Your task to perform on an android device: turn on the 12-hour format for clock Image 0: 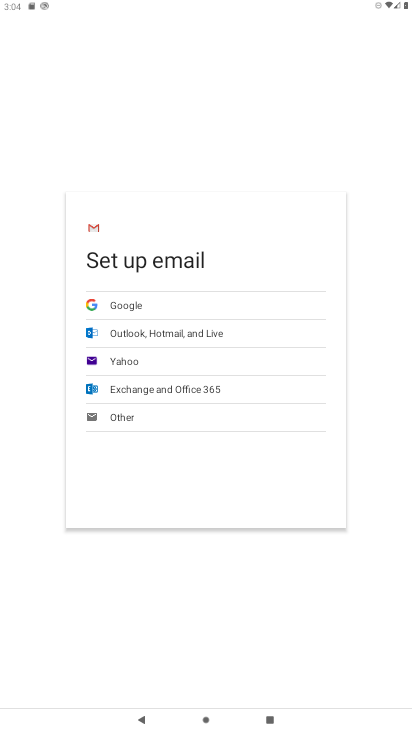
Step 0: press home button
Your task to perform on an android device: turn on the 12-hour format for clock Image 1: 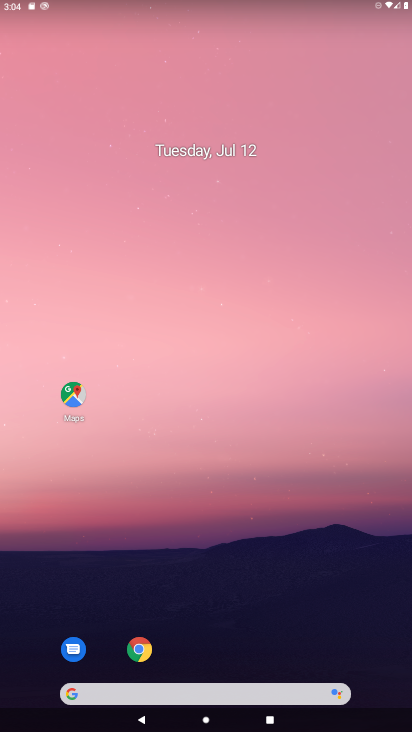
Step 1: drag from (266, 615) to (182, 40)
Your task to perform on an android device: turn on the 12-hour format for clock Image 2: 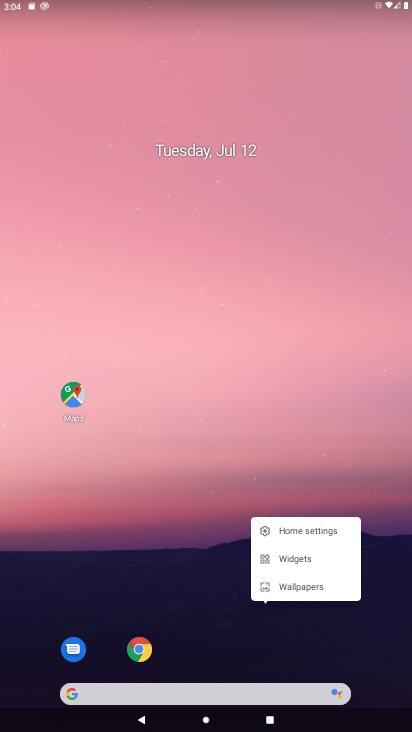
Step 2: click (186, 389)
Your task to perform on an android device: turn on the 12-hour format for clock Image 3: 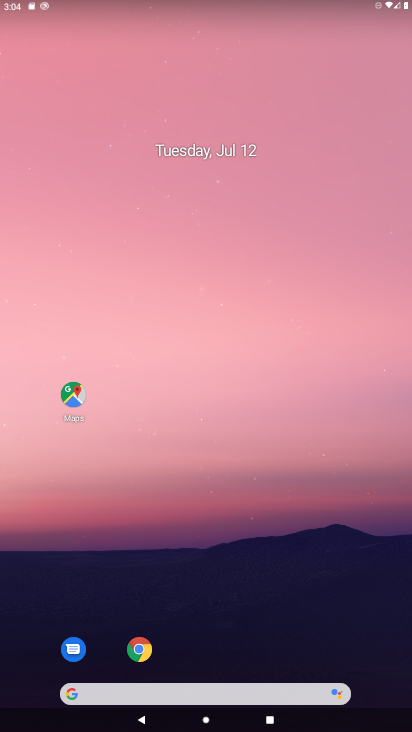
Step 3: drag from (207, 621) to (121, 43)
Your task to perform on an android device: turn on the 12-hour format for clock Image 4: 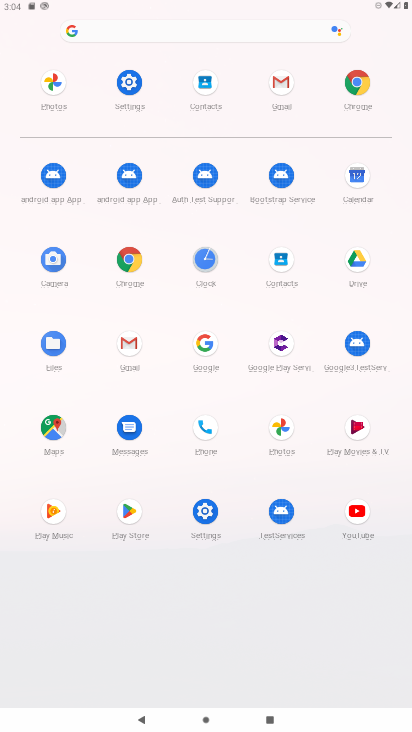
Step 4: click (223, 268)
Your task to perform on an android device: turn on the 12-hour format for clock Image 5: 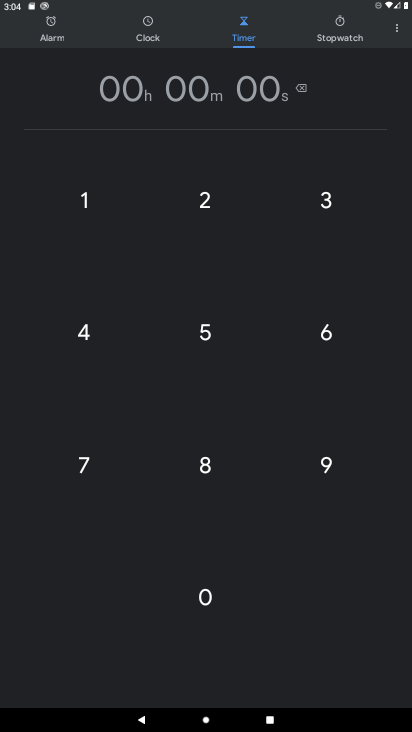
Step 5: click (391, 32)
Your task to perform on an android device: turn on the 12-hour format for clock Image 6: 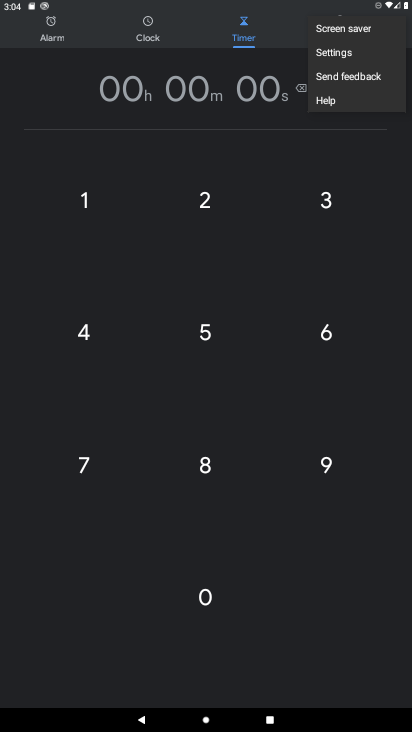
Step 6: click (324, 59)
Your task to perform on an android device: turn on the 12-hour format for clock Image 7: 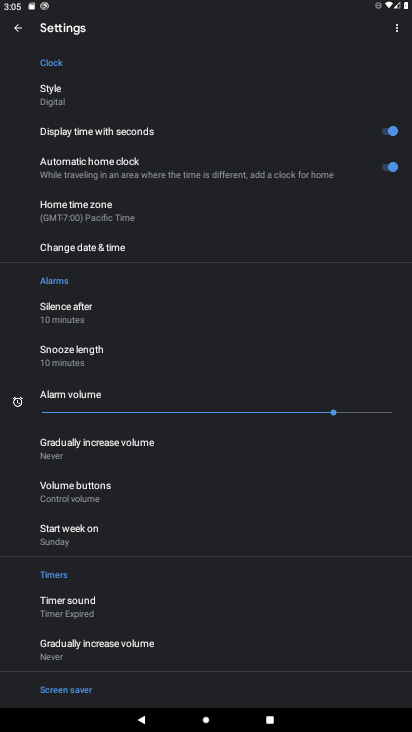
Step 7: click (225, 250)
Your task to perform on an android device: turn on the 12-hour format for clock Image 8: 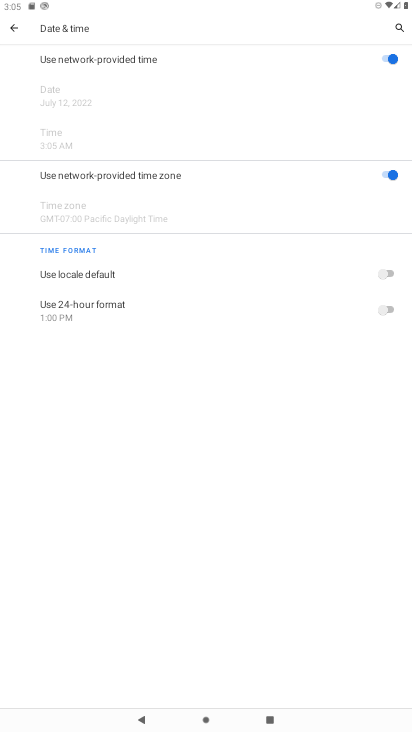
Step 8: task complete